Your task to perform on an android device: Go to Google maps Image 0: 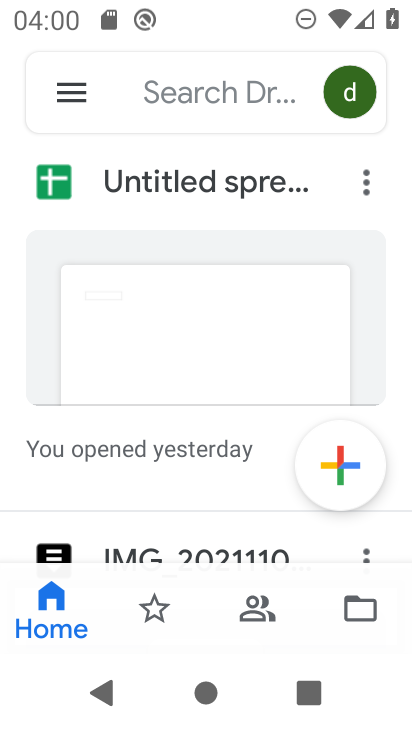
Step 0: press back button
Your task to perform on an android device: Go to Google maps Image 1: 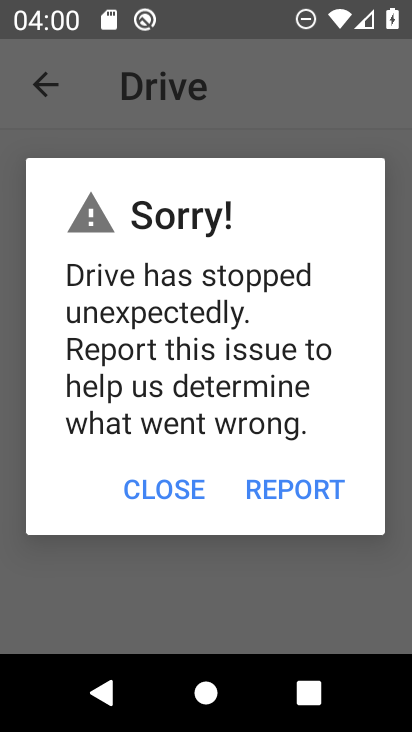
Step 1: press home button
Your task to perform on an android device: Go to Google maps Image 2: 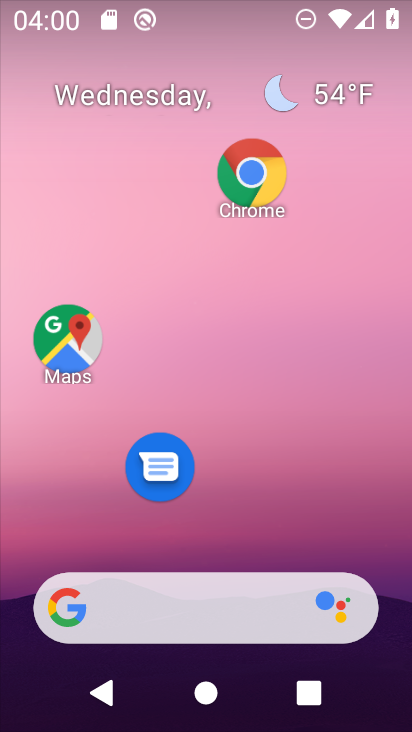
Step 2: click (283, 101)
Your task to perform on an android device: Go to Google maps Image 3: 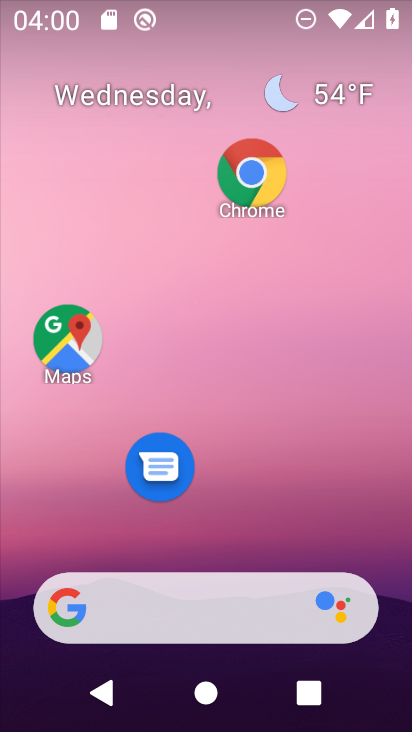
Step 3: click (72, 346)
Your task to perform on an android device: Go to Google maps Image 4: 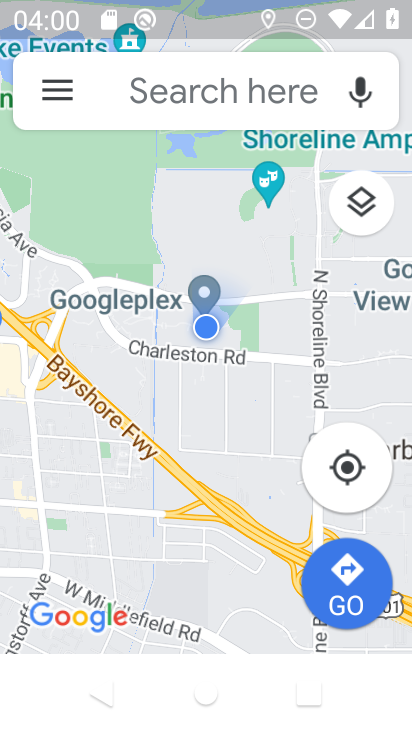
Step 4: task complete